Your task to perform on an android device: Open sound settings Image 0: 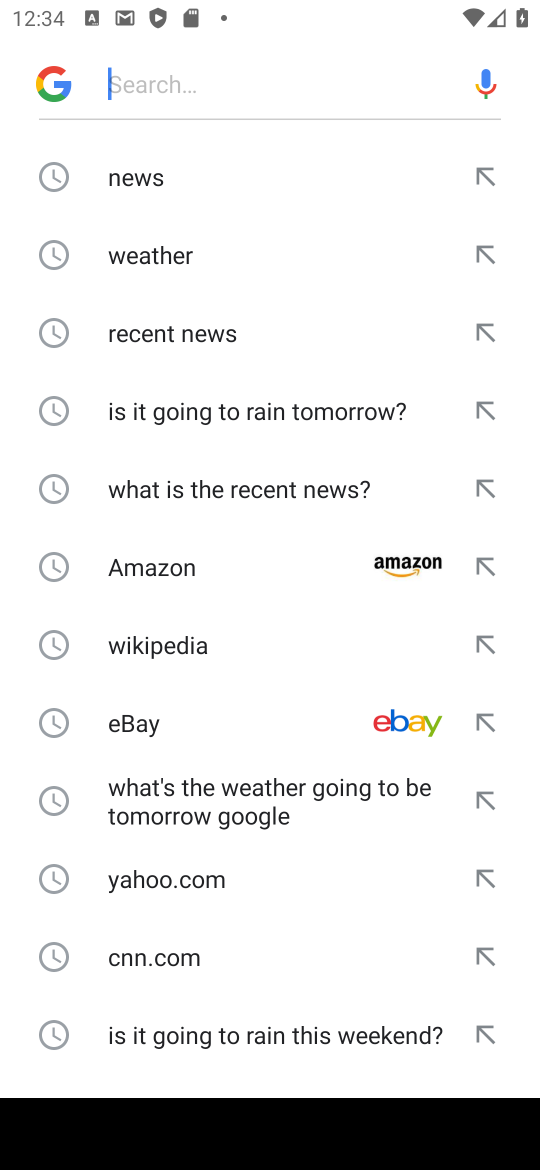
Step 0: press home button
Your task to perform on an android device: Open sound settings Image 1: 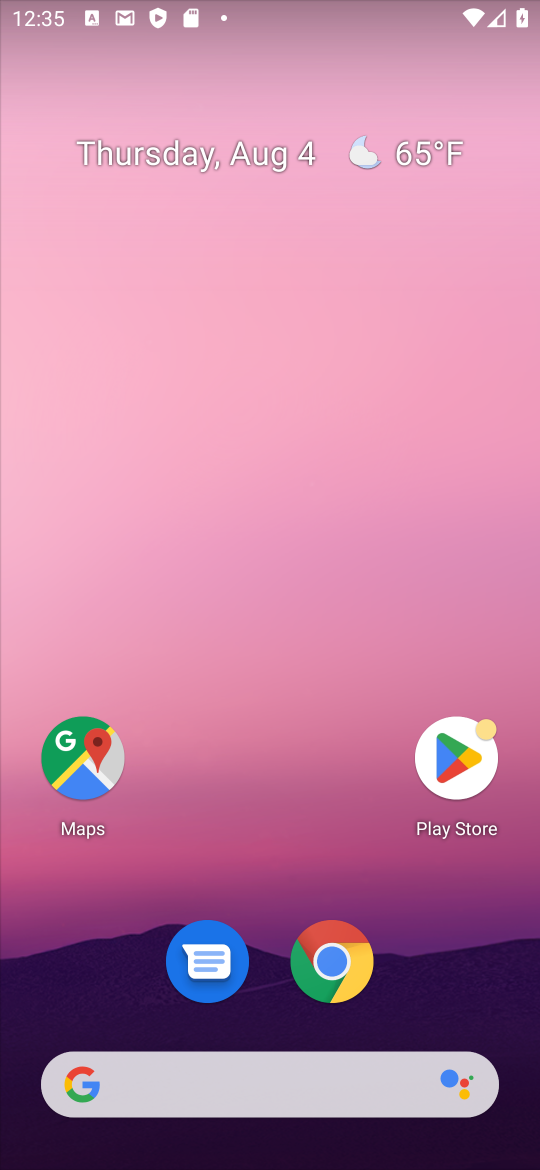
Step 1: drag from (291, 795) to (278, 37)
Your task to perform on an android device: Open sound settings Image 2: 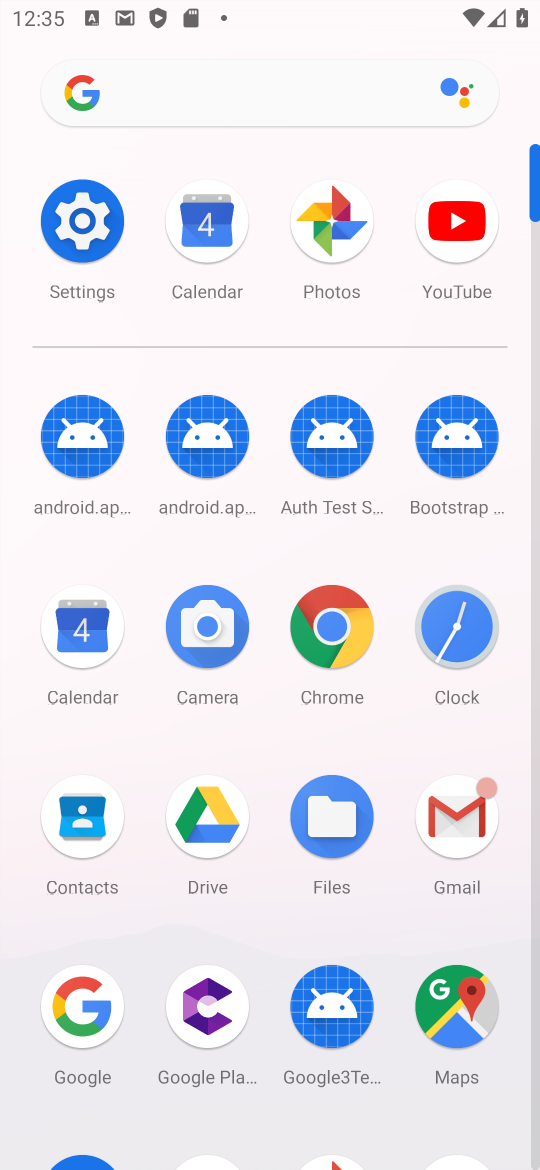
Step 2: click (71, 217)
Your task to perform on an android device: Open sound settings Image 3: 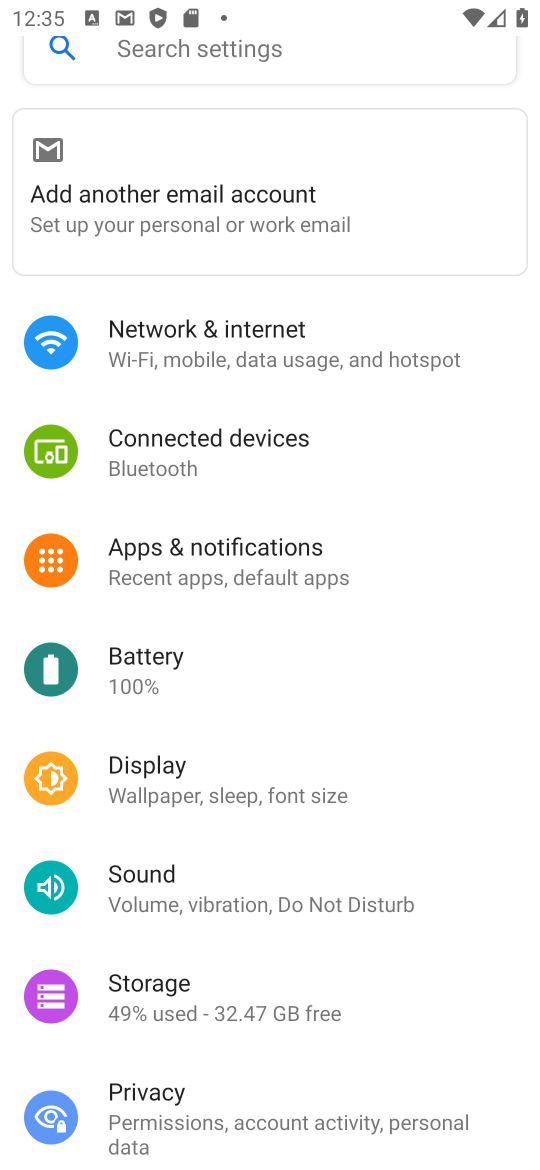
Step 3: click (238, 886)
Your task to perform on an android device: Open sound settings Image 4: 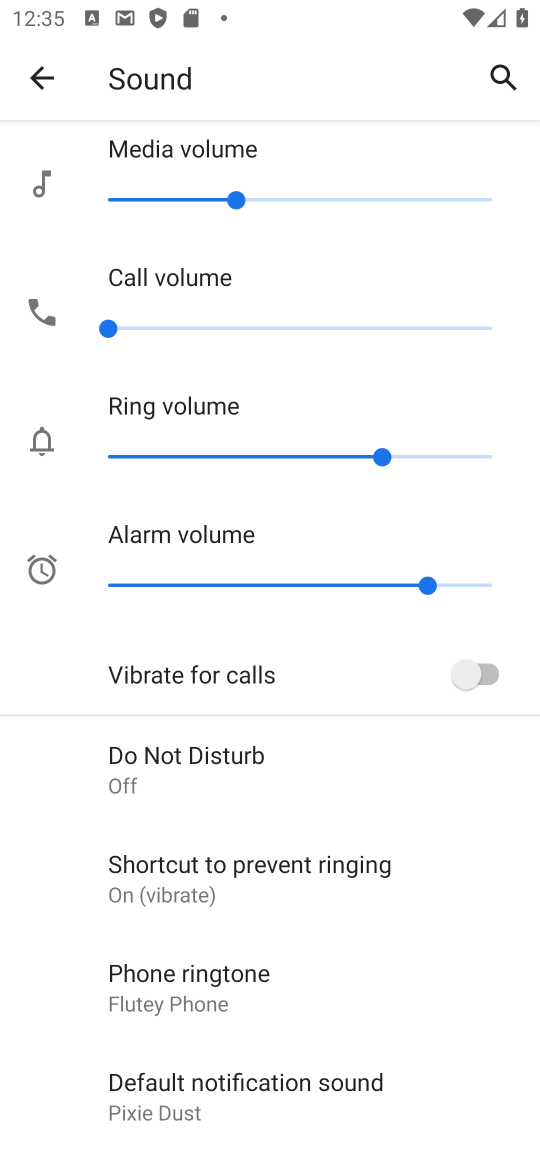
Step 4: task complete